Your task to perform on an android device: Open calendar and show me the third week of next month Image 0: 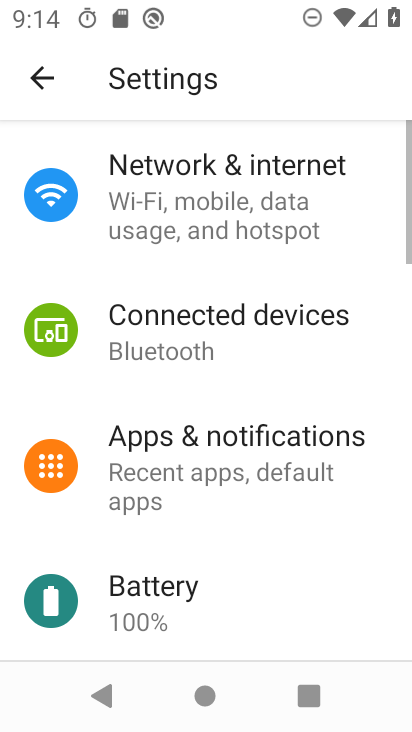
Step 0: press back button
Your task to perform on an android device: Open calendar and show me the third week of next month Image 1: 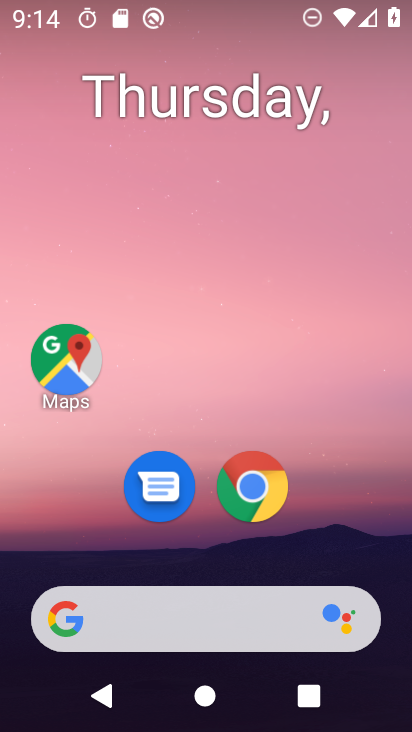
Step 1: drag from (91, 528) to (194, 27)
Your task to perform on an android device: Open calendar and show me the third week of next month Image 2: 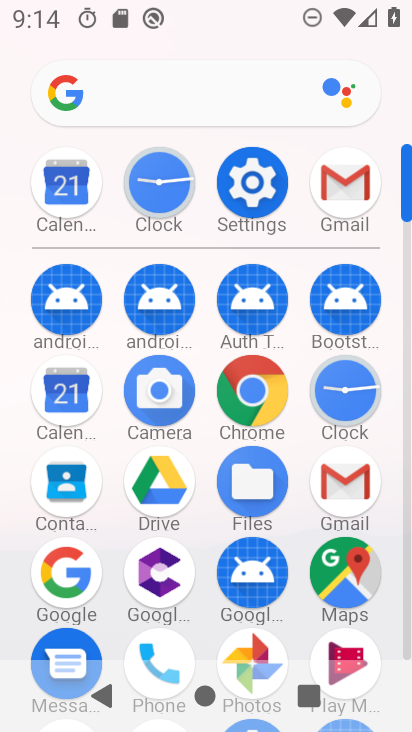
Step 2: click (68, 410)
Your task to perform on an android device: Open calendar and show me the third week of next month Image 3: 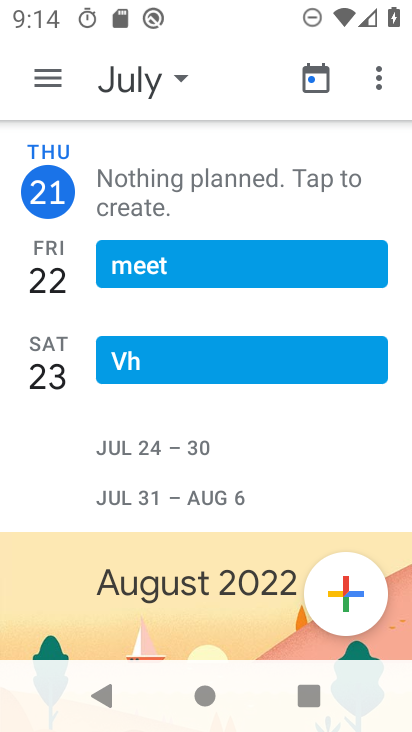
Step 3: click (166, 70)
Your task to perform on an android device: Open calendar and show me the third week of next month Image 4: 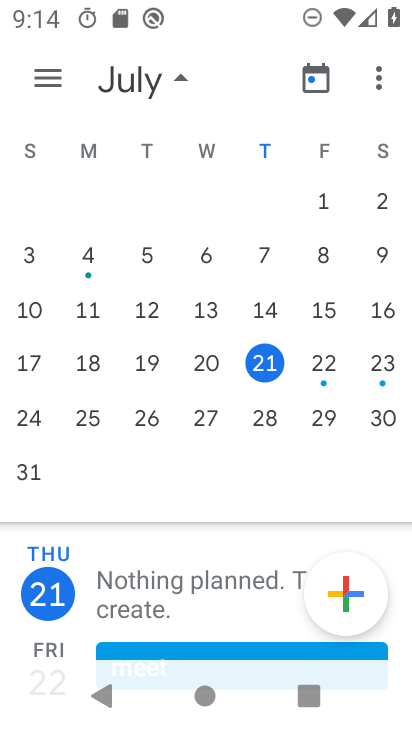
Step 4: drag from (366, 325) to (60, 301)
Your task to perform on an android device: Open calendar and show me the third week of next month Image 5: 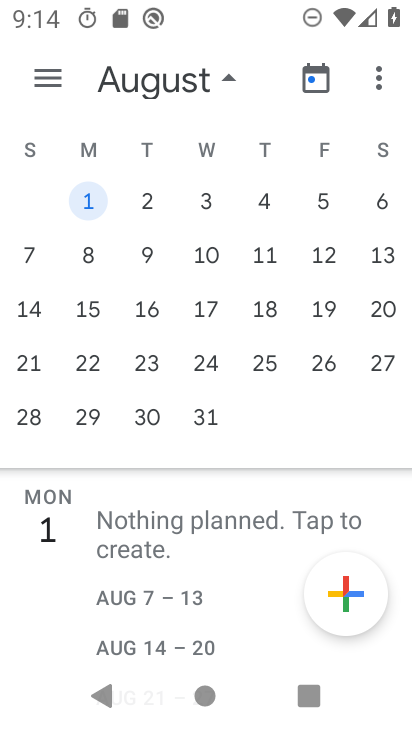
Step 5: click (82, 306)
Your task to perform on an android device: Open calendar and show me the third week of next month Image 6: 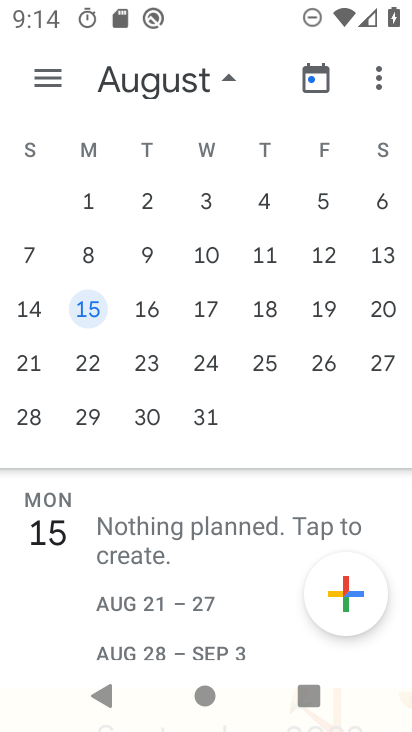
Step 6: task complete